Your task to perform on an android device: change alarm snooze length Image 0: 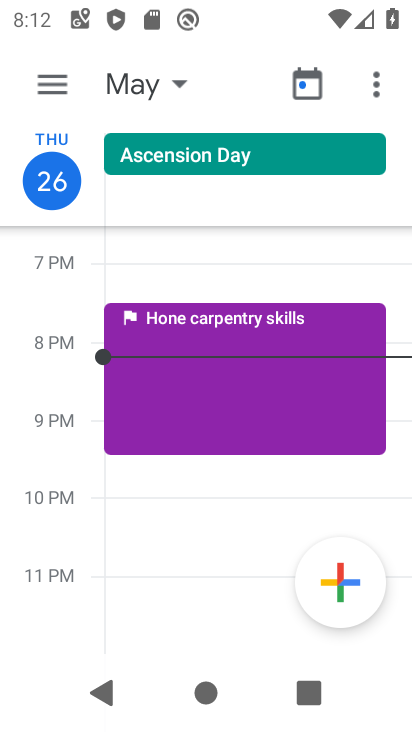
Step 0: press home button
Your task to perform on an android device: change alarm snooze length Image 1: 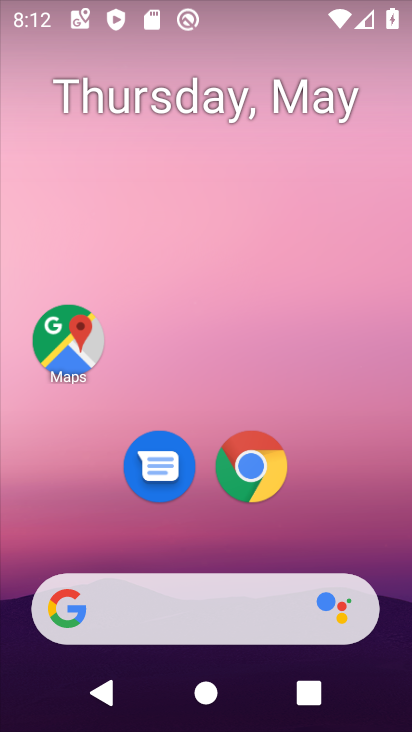
Step 1: click (364, 3)
Your task to perform on an android device: change alarm snooze length Image 2: 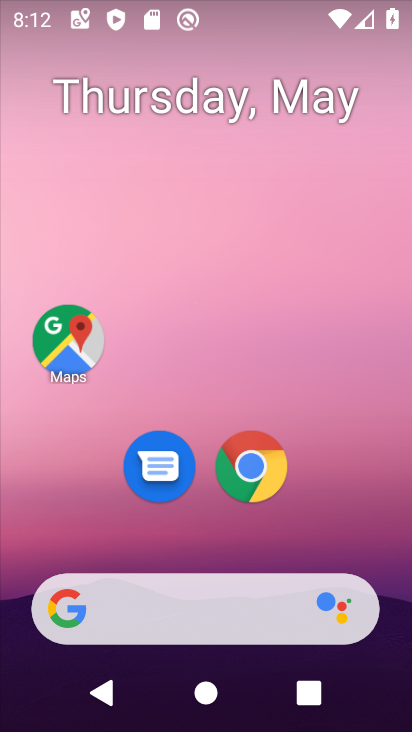
Step 2: drag from (319, 550) to (364, 6)
Your task to perform on an android device: change alarm snooze length Image 3: 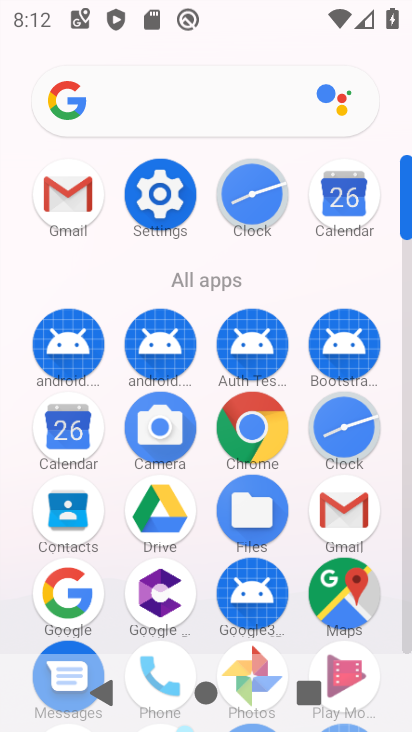
Step 3: click (258, 202)
Your task to perform on an android device: change alarm snooze length Image 4: 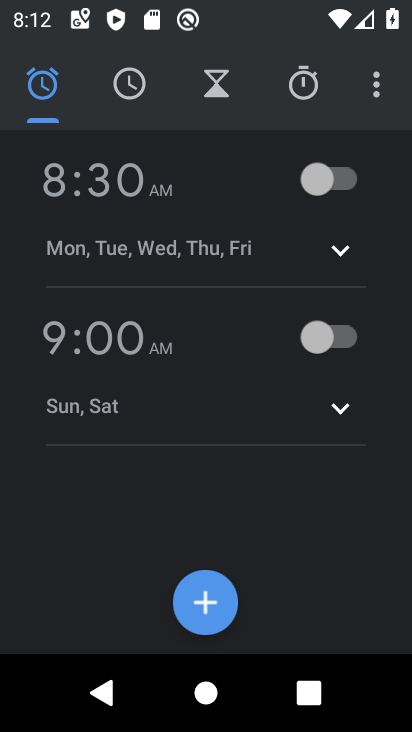
Step 4: click (379, 91)
Your task to perform on an android device: change alarm snooze length Image 5: 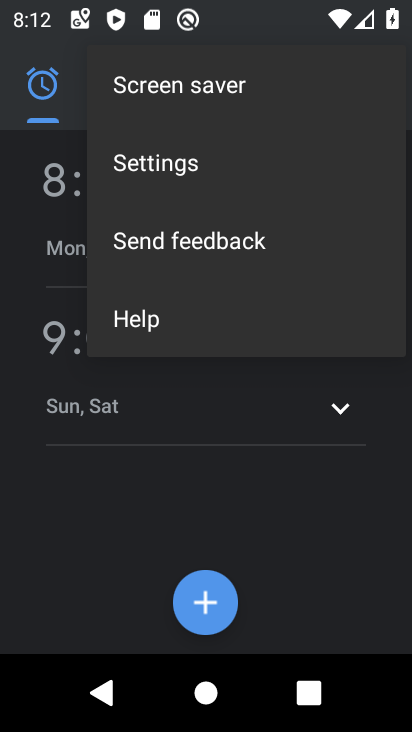
Step 5: click (177, 160)
Your task to perform on an android device: change alarm snooze length Image 6: 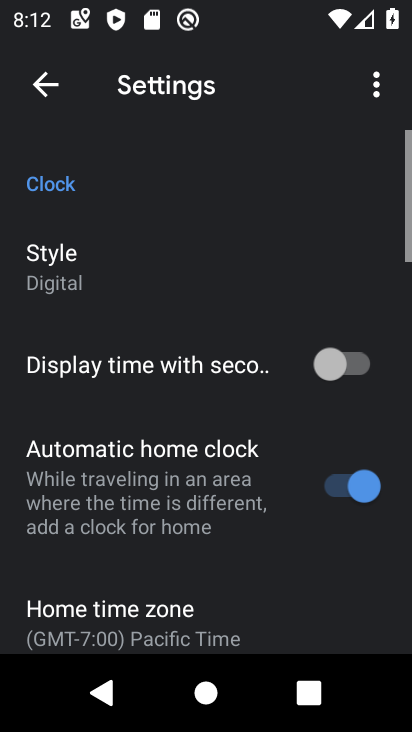
Step 6: drag from (128, 481) to (122, 153)
Your task to perform on an android device: change alarm snooze length Image 7: 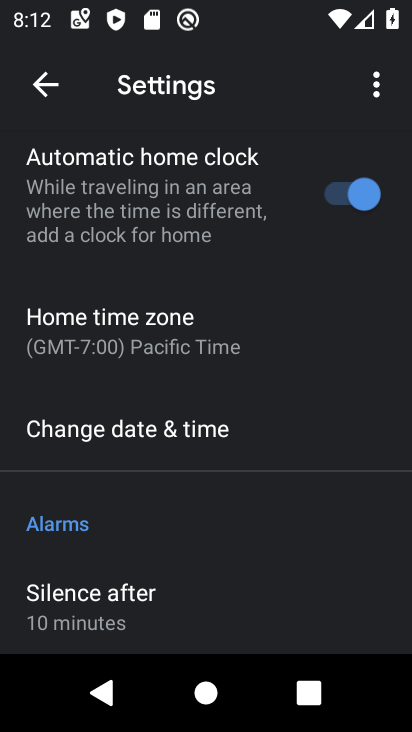
Step 7: drag from (134, 463) to (148, 134)
Your task to perform on an android device: change alarm snooze length Image 8: 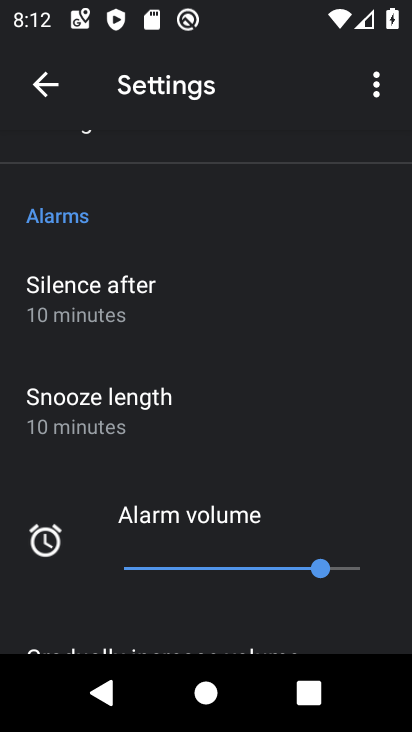
Step 8: click (90, 429)
Your task to perform on an android device: change alarm snooze length Image 9: 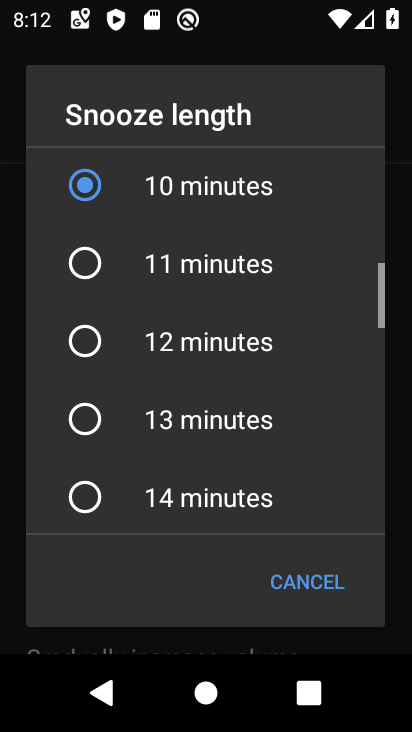
Step 9: click (78, 347)
Your task to perform on an android device: change alarm snooze length Image 10: 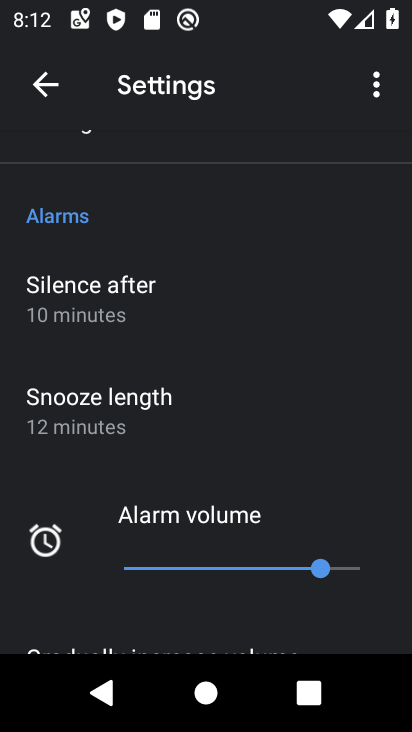
Step 10: task complete